Your task to perform on an android device: Go to eBay Image 0: 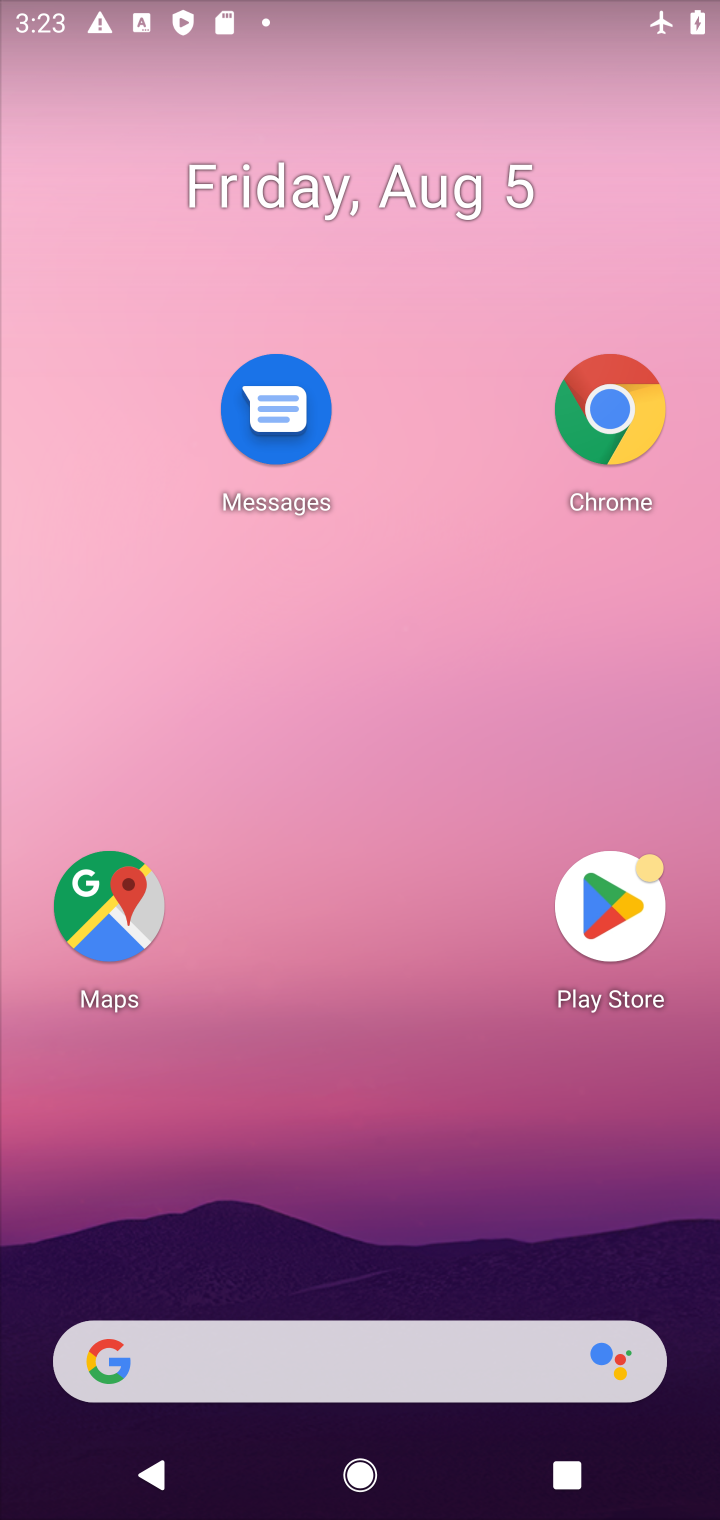
Step 0: click (558, 385)
Your task to perform on an android device: Go to eBay Image 1: 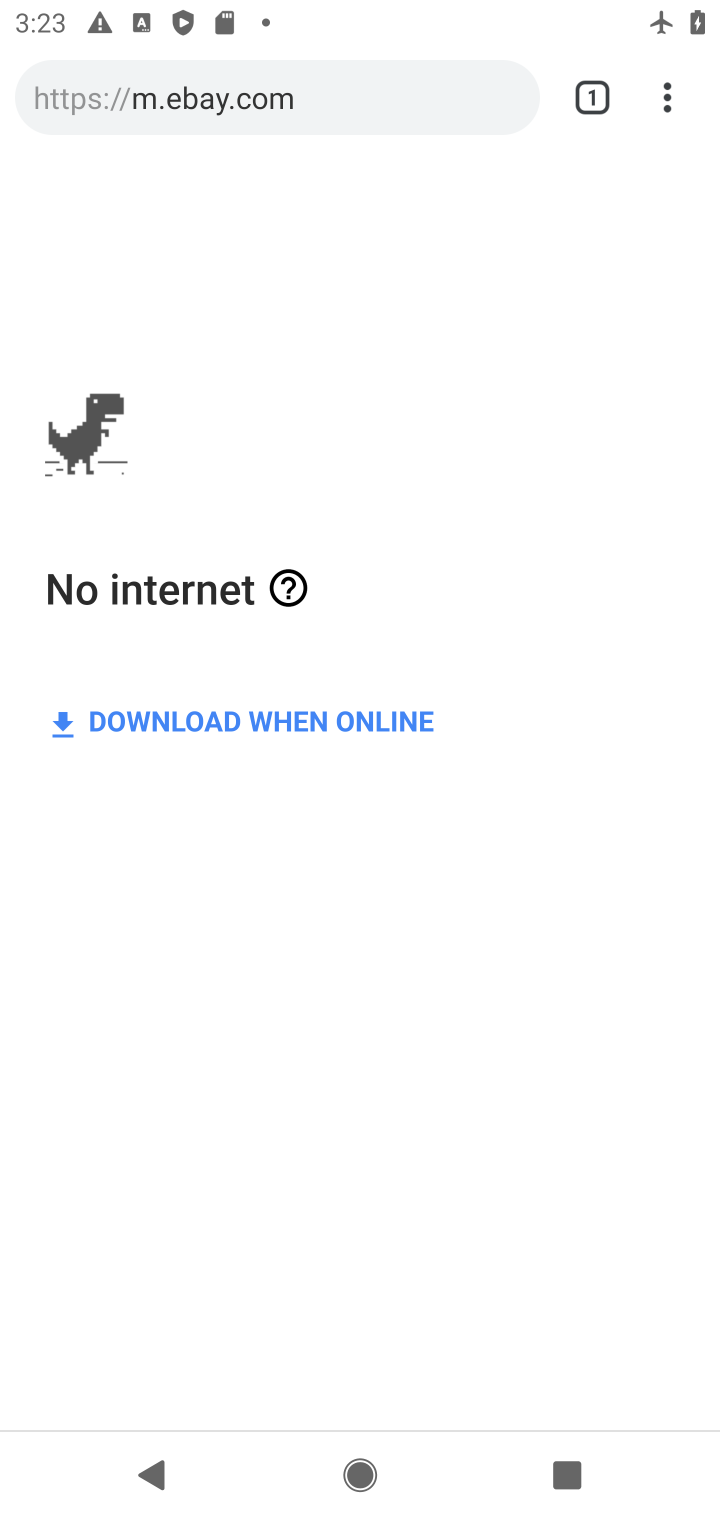
Step 1: task complete